Your task to perform on an android device: Play the last video I watched on Youtube Image 0: 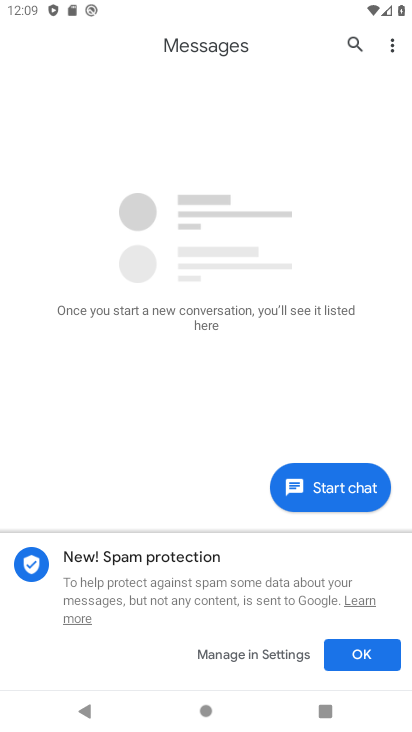
Step 0: press home button
Your task to perform on an android device: Play the last video I watched on Youtube Image 1: 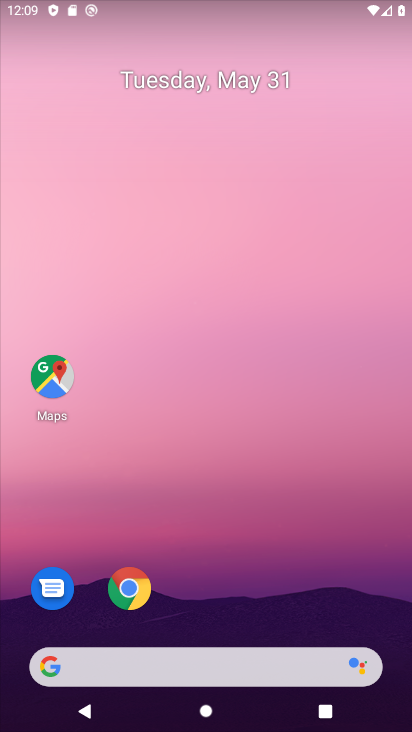
Step 1: drag from (147, 726) to (212, 41)
Your task to perform on an android device: Play the last video I watched on Youtube Image 2: 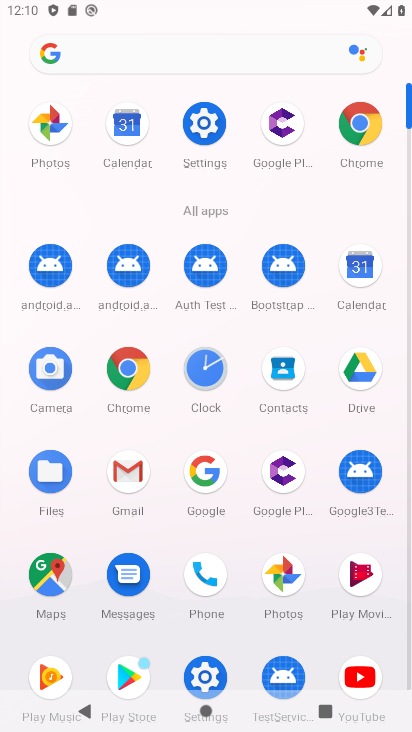
Step 2: click (369, 675)
Your task to perform on an android device: Play the last video I watched on Youtube Image 3: 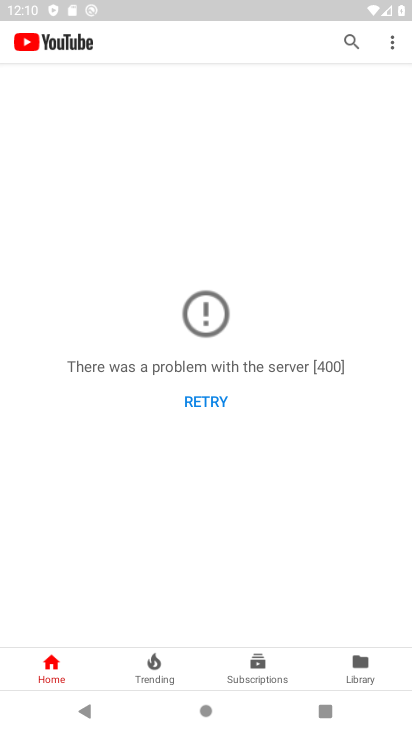
Step 3: click (359, 667)
Your task to perform on an android device: Play the last video I watched on Youtube Image 4: 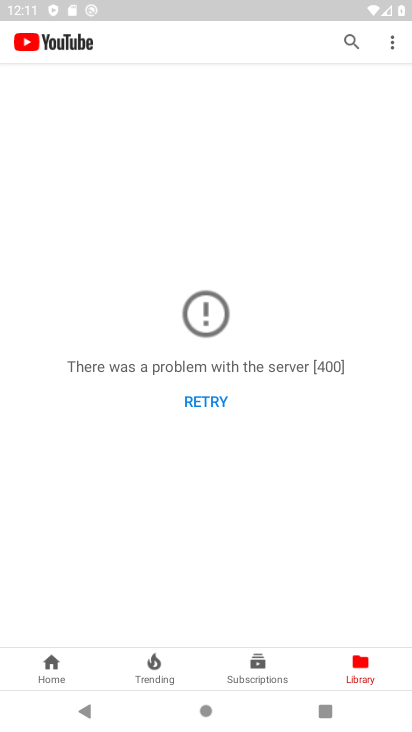
Step 4: task complete